Your task to perform on an android device: Show me productivity apps on the Play Store Image 0: 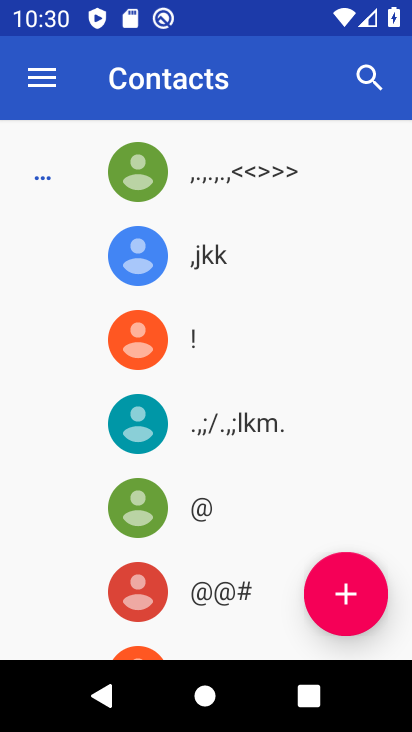
Step 0: press home button
Your task to perform on an android device: Show me productivity apps on the Play Store Image 1: 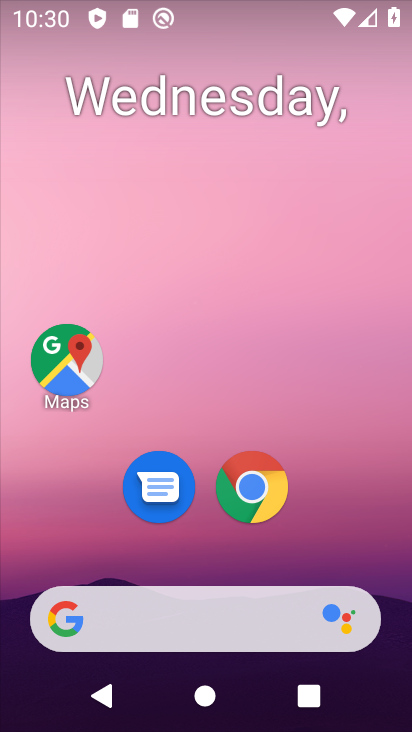
Step 1: drag from (293, 532) to (284, 76)
Your task to perform on an android device: Show me productivity apps on the Play Store Image 2: 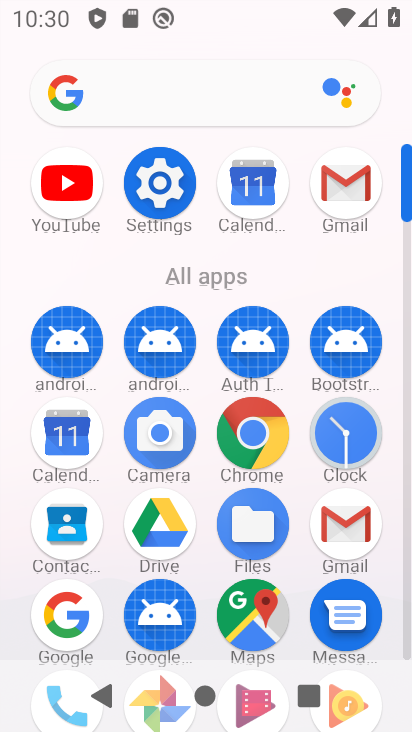
Step 2: drag from (202, 629) to (217, 140)
Your task to perform on an android device: Show me productivity apps on the Play Store Image 3: 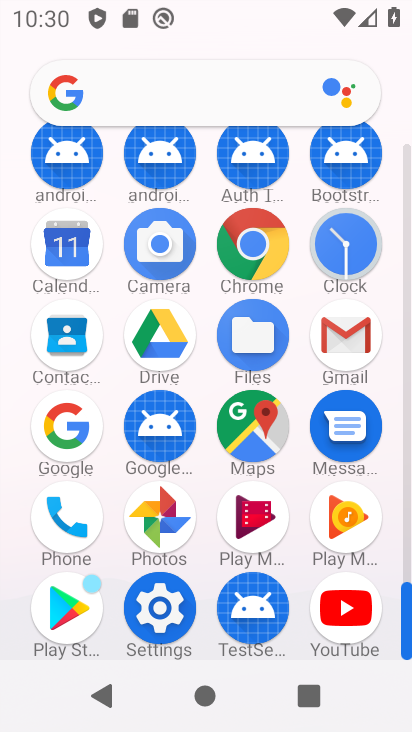
Step 3: click (61, 619)
Your task to perform on an android device: Show me productivity apps on the Play Store Image 4: 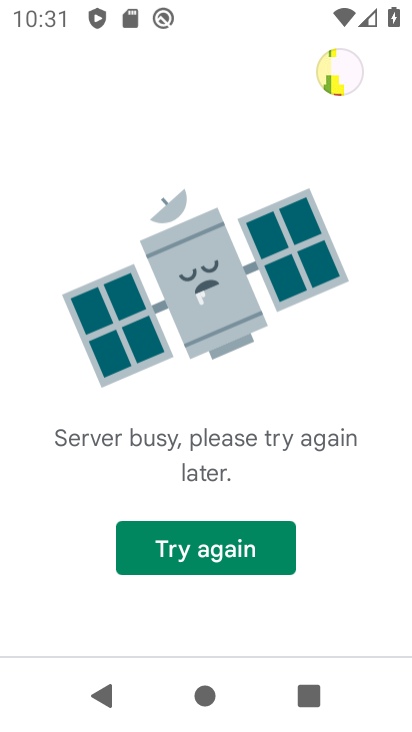
Step 4: click (249, 555)
Your task to perform on an android device: Show me productivity apps on the Play Store Image 5: 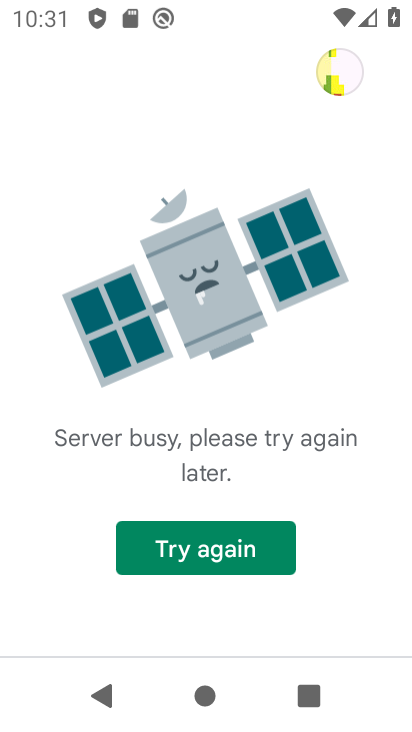
Step 5: task complete